Your task to perform on an android device: Go to battery settings Image 0: 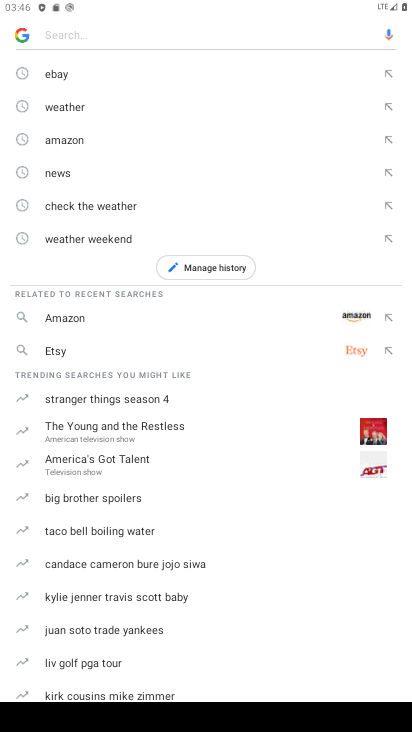
Step 0: press home button
Your task to perform on an android device: Go to battery settings Image 1: 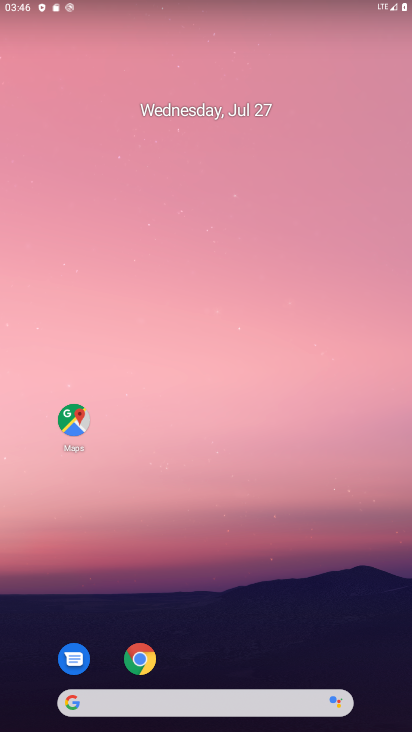
Step 1: drag from (209, 669) to (248, 49)
Your task to perform on an android device: Go to battery settings Image 2: 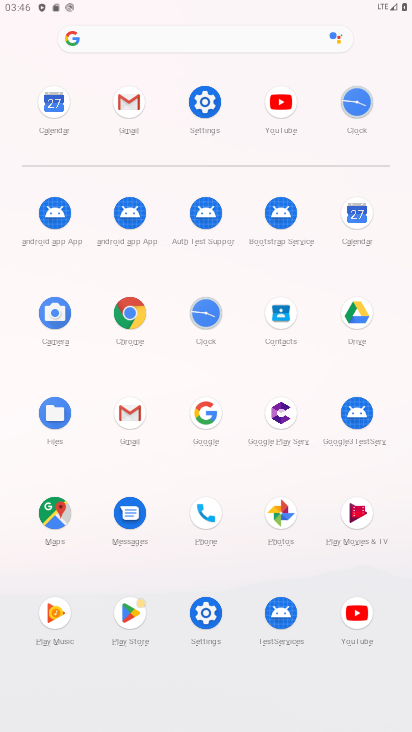
Step 2: click (203, 108)
Your task to perform on an android device: Go to battery settings Image 3: 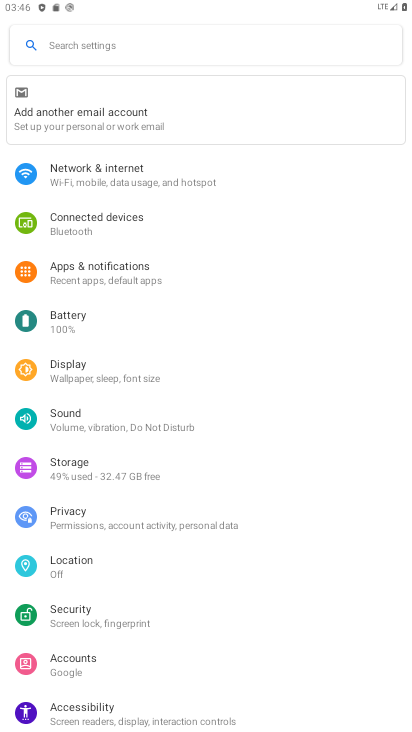
Step 3: click (61, 323)
Your task to perform on an android device: Go to battery settings Image 4: 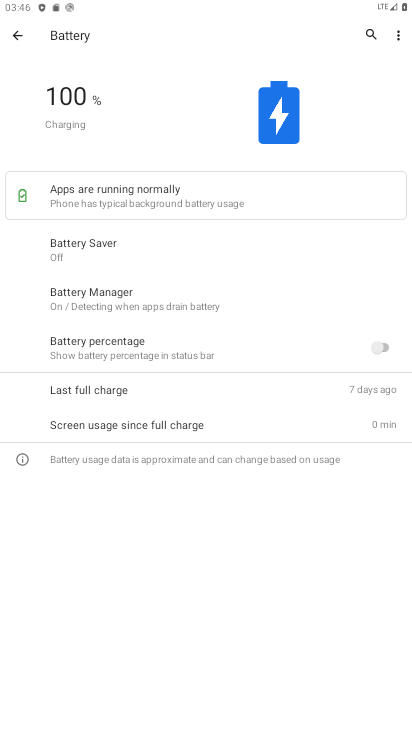
Step 4: task complete